Your task to perform on an android device: change text size in settings app Image 0: 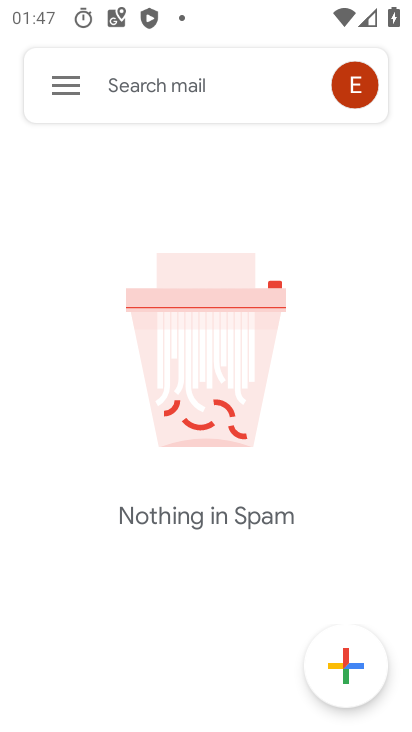
Step 0: press back button
Your task to perform on an android device: change text size in settings app Image 1: 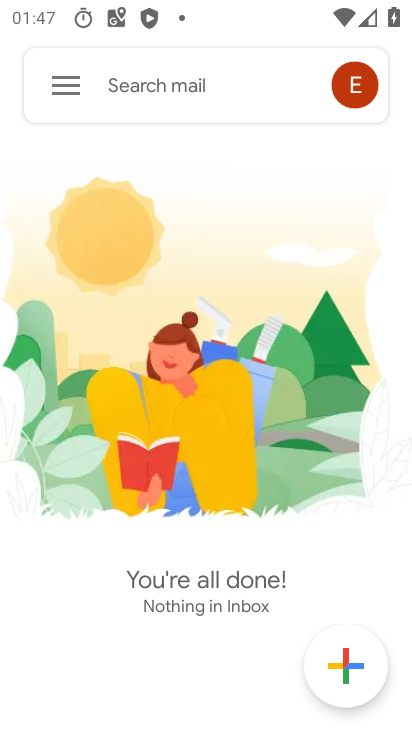
Step 1: press back button
Your task to perform on an android device: change text size in settings app Image 2: 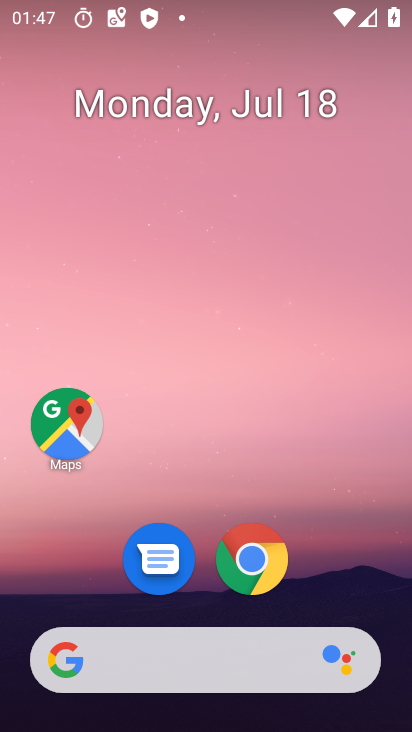
Step 2: drag from (215, 531) to (273, 54)
Your task to perform on an android device: change text size in settings app Image 3: 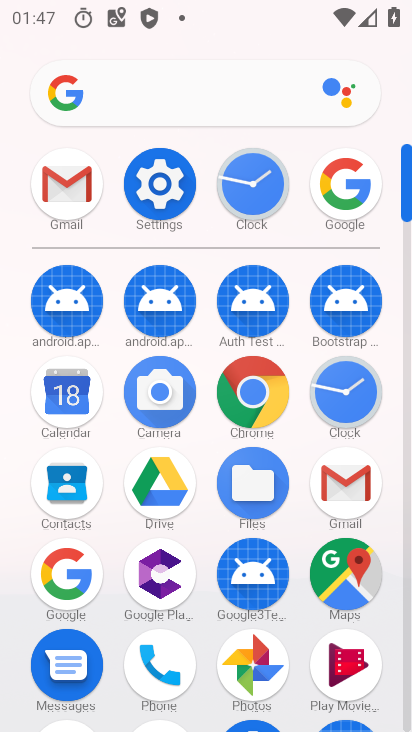
Step 3: click (184, 154)
Your task to perform on an android device: change text size in settings app Image 4: 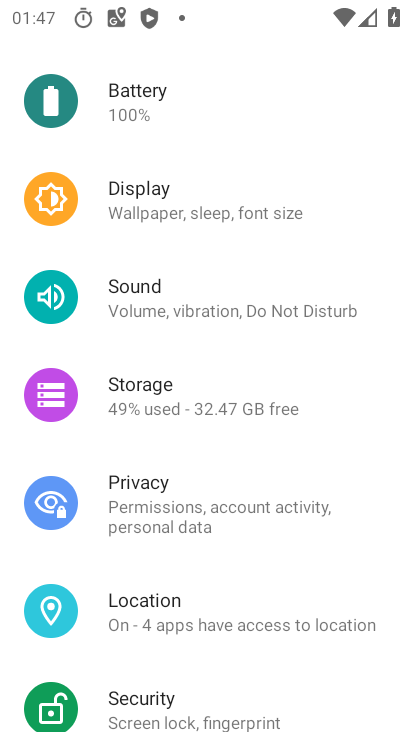
Step 4: drag from (185, 96) to (159, 670)
Your task to perform on an android device: change text size in settings app Image 5: 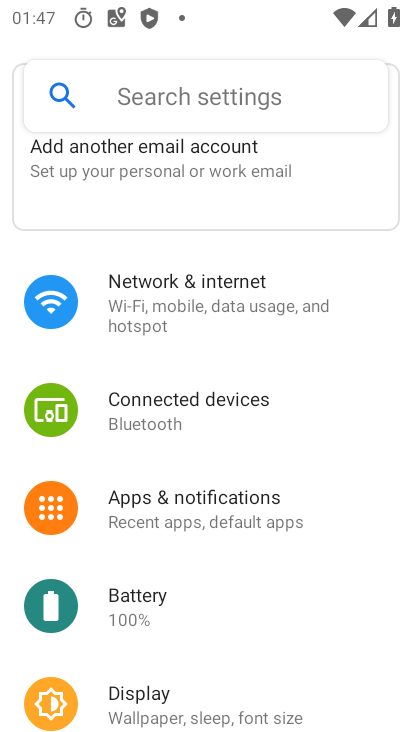
Step 5: click (195, 93)
Your task to perform on an android device: change text size in settings app Image 6: 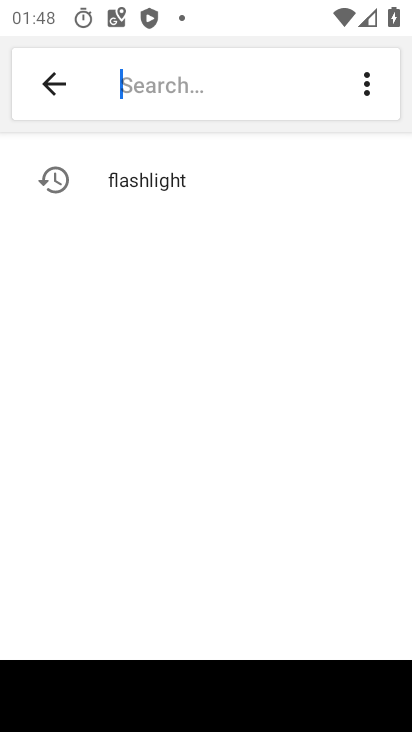
Step 6: type "text size"
Your task to perform on an android device: change text size in settings app Image 7: 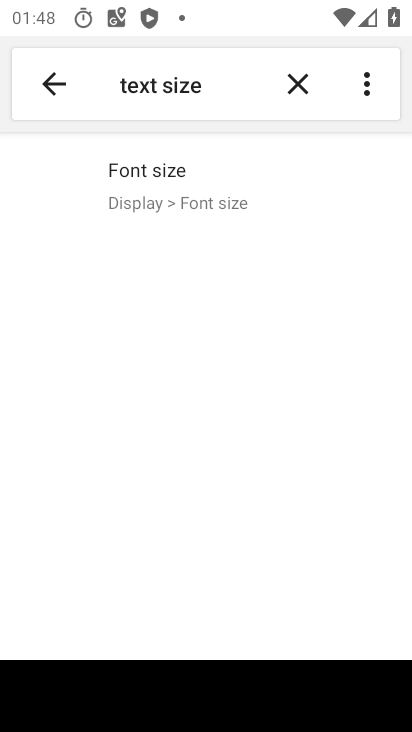
Step 7: click (246, 189)
Your task to perform on an android device: change text size in settings app Image 8: 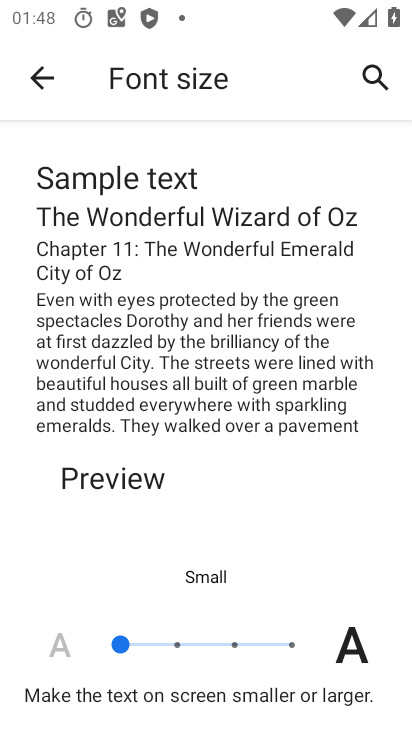
Step 8: click (229, 642)
Your task to perform on an android device: change text size in settings app Image 9: 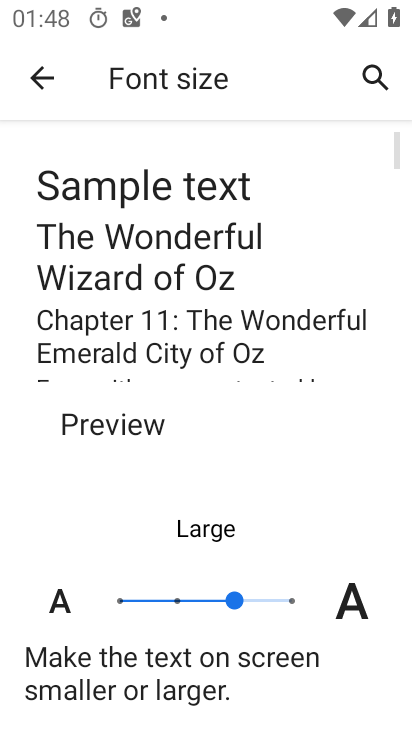
Step 9: task complete